Your task to perform on an android device: Open Yahoo.com Image 0: 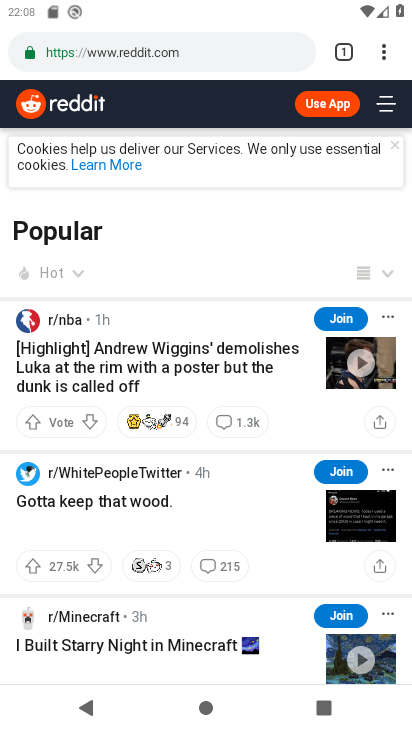
Step 0: click (342, 57)
Your task to perform on an android device: Open Yahoo.com Image 1: 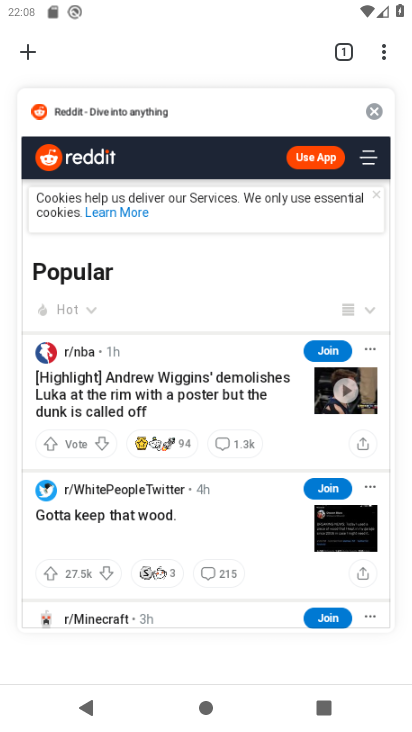
Step 1: click (376, 105)
Your task to perform on an android device: Open Yahoo.com Image 2: 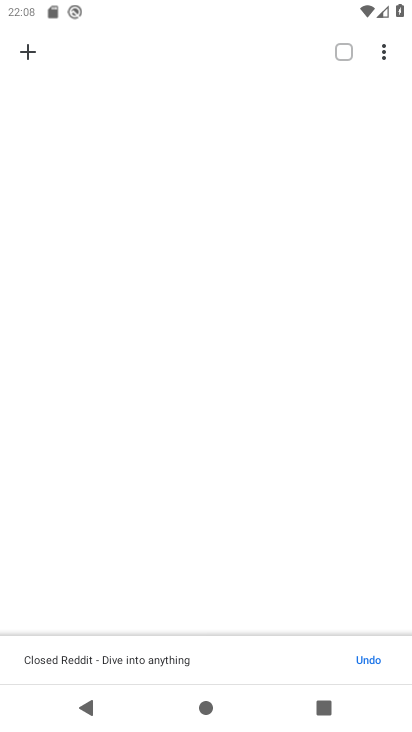
Step 2: click (28, 55)
Your task to perform on an android device: Open Yahoo.com Image 3: 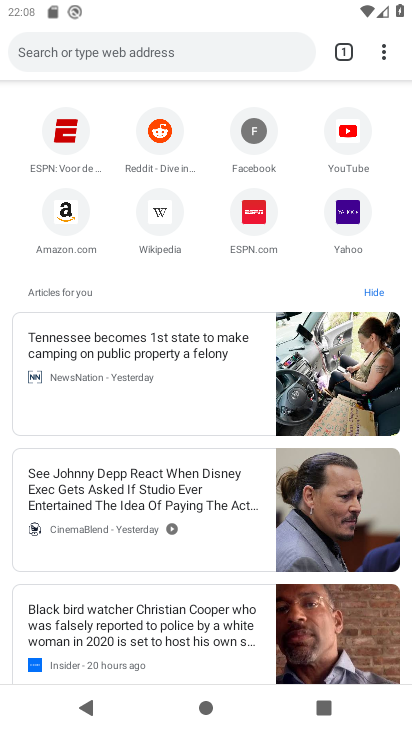
Step 3: click (342, 215)
Your task to perform on an android device: Open Yahoo.com Image 4: 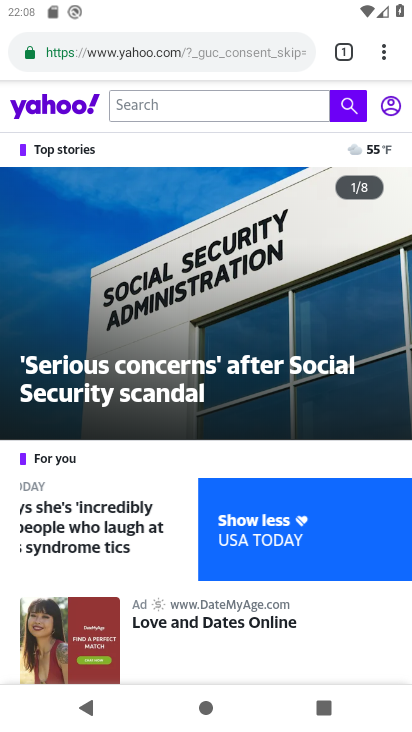
Step 4: task complete